Your task to perform on an android device: Open Youtube and go to the subscriptions tab Image 0: 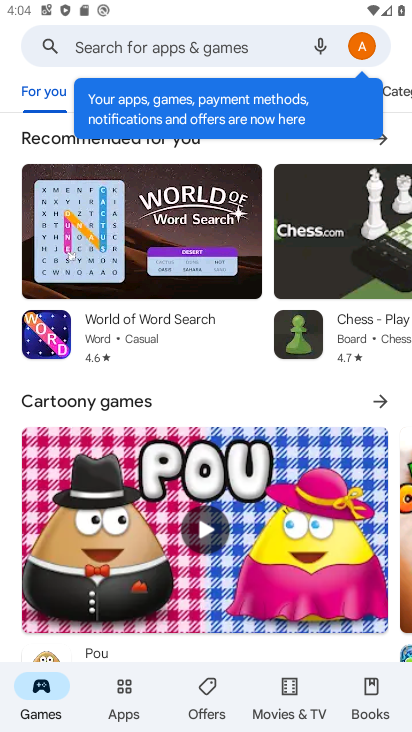
Step 0: press home button
Your task to perform on an android device: Open Youtube and go to the subscriptions tab Image 1: 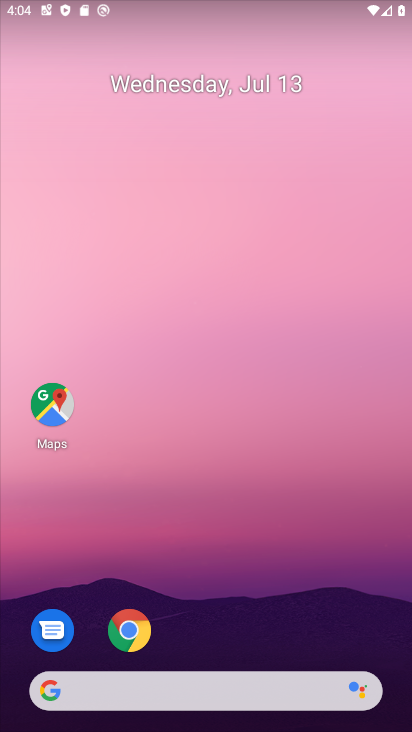
Step 1: drag from (316, 697) to (411, 11)
Your task to perform on an android device: Open Youtube and go to the subscriptions tab Image 2: 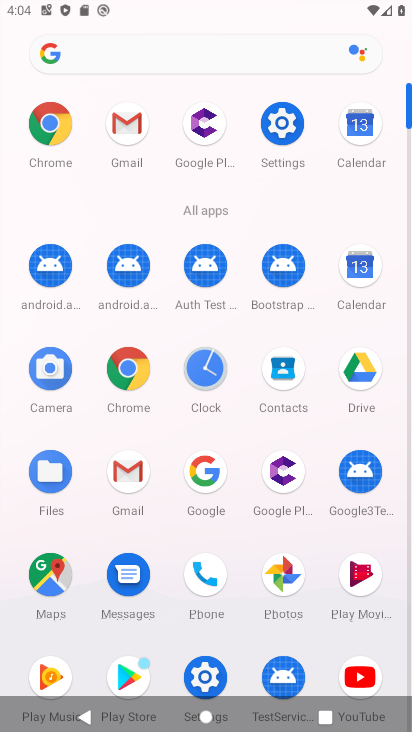
Step 2: click (366, 663)
Your task to perform on an android device: Open Youtube and go to the subscriptions tab Image 3: 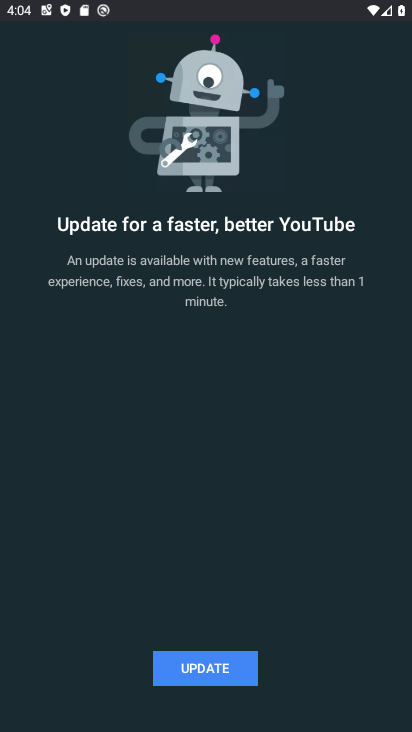
Step 3: click (244, 667)
Your task to perform on an android device: Open Youtube and go to the subscriptions tab Image 4: 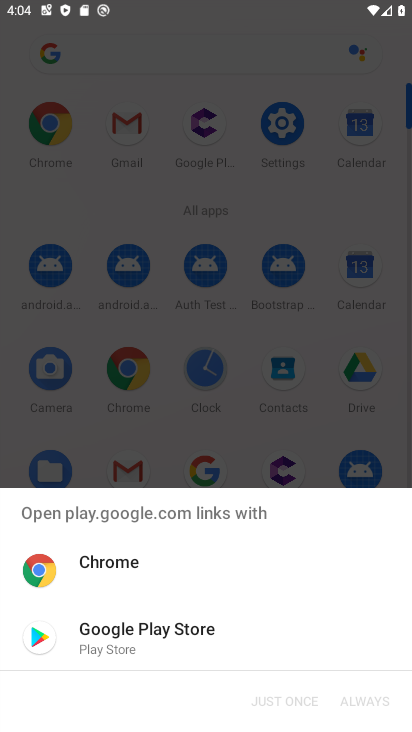
Step 4: click (148, 647)
Your task to perform on an android device: Open Youtube and go to the subscriptions tab Image 5: 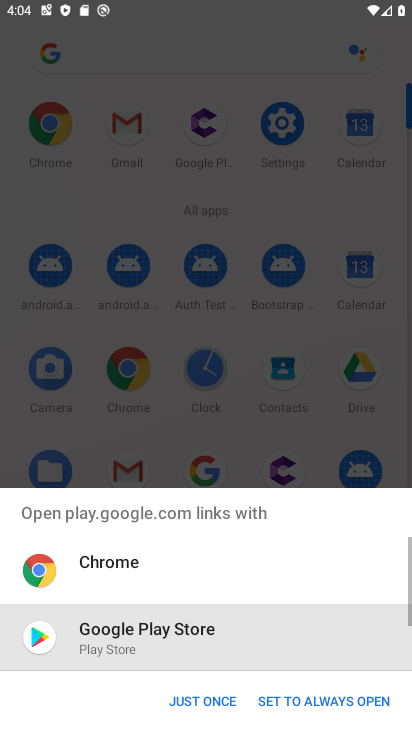
Step 5: click (199, 700)
Your task to perform on an android device: Open Youtube and go to the subscriptions tab Image 6: 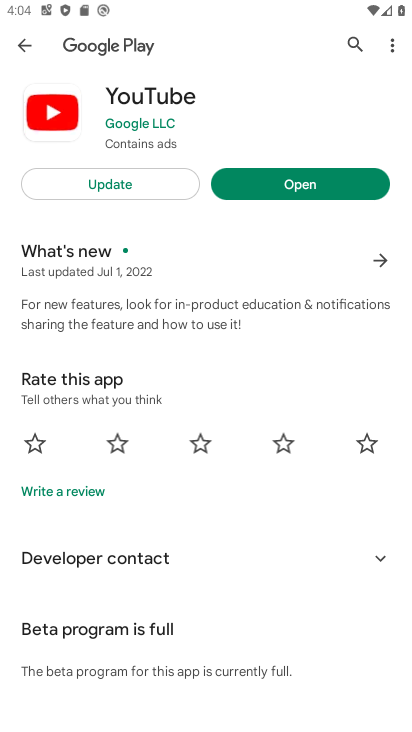
Step 6: click (174, 178)
Your task to perform on an android device: Open Youtube and go to the subscriptions tab Image 7: 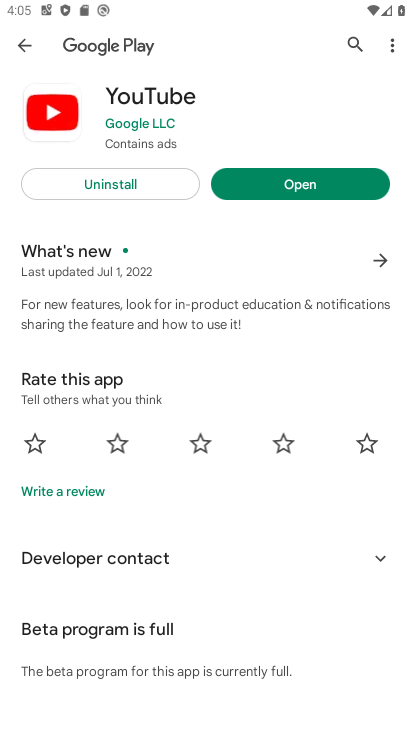
Step 7: click (322, 193)
Your task to perform on an android device: Open Youtube and go to the subscriptions tab Image 8: 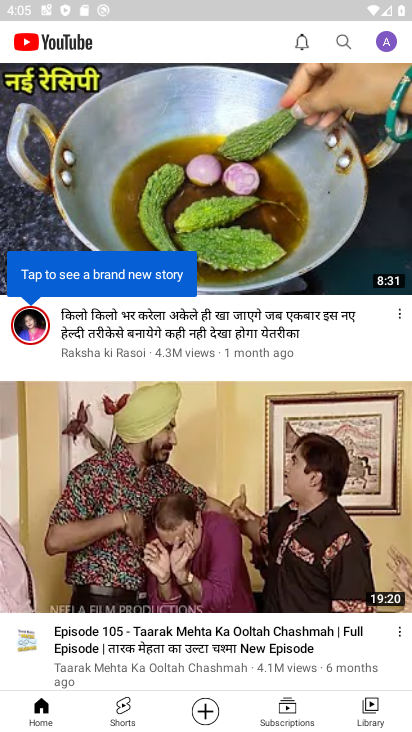
Step 8: click (297, 707)
Your task to perform on an android device: Open Youtube and go to the subscriptions tab Image 9: 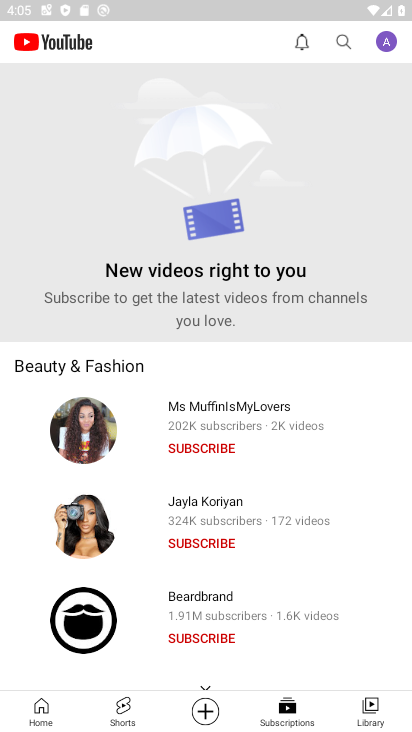
Step 9: task complete